Your task to perform on an android device: empty trash in the gmail app Image 0: 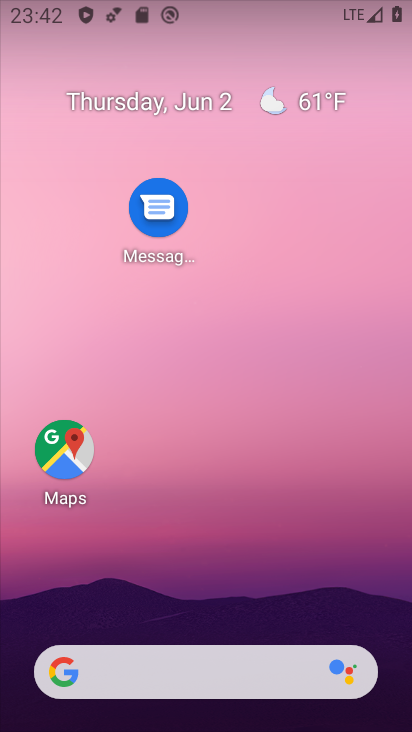
Step 0: drag from (226, 617) to (392, 517)
Your task to perform on an android device: empty trash in the gmail app Image 1: 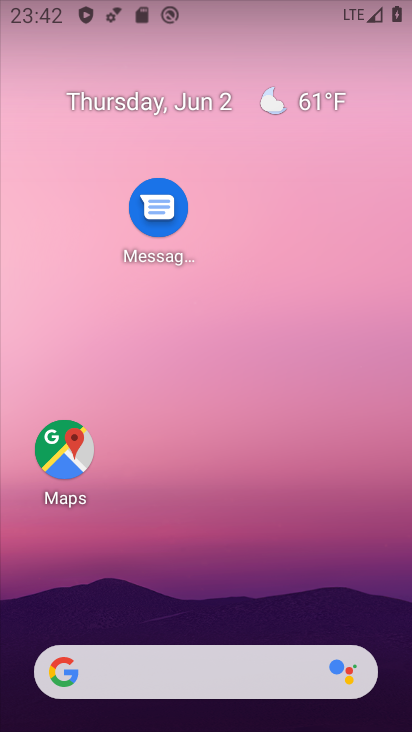
Step 1: drag from (169, 646) to (191, 14)
Your task to perform on an android device: empty trash in the gmail app Image 2: 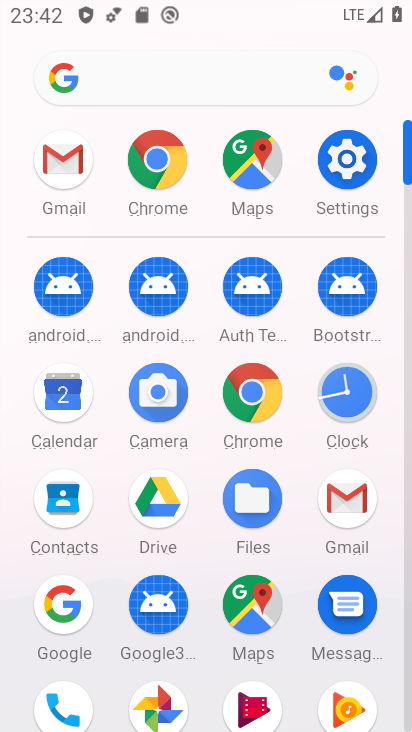
Step 2: click (338, 506)
Your task to perform on an android device: empty trash in the gmail app Image 3: 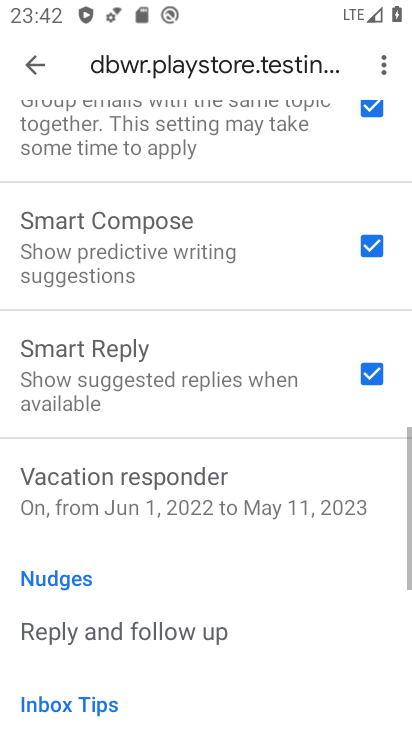
Step 3: click (23, 70)
Your task to perform on an android device: empty trash in the gmail app Image 4: 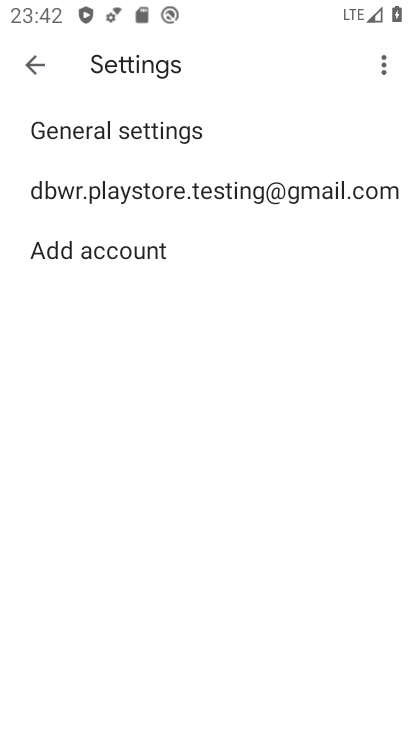
Step 4: click (37, 71)
Your task to perform on an android device: empty trash in the gmail app Image 5: 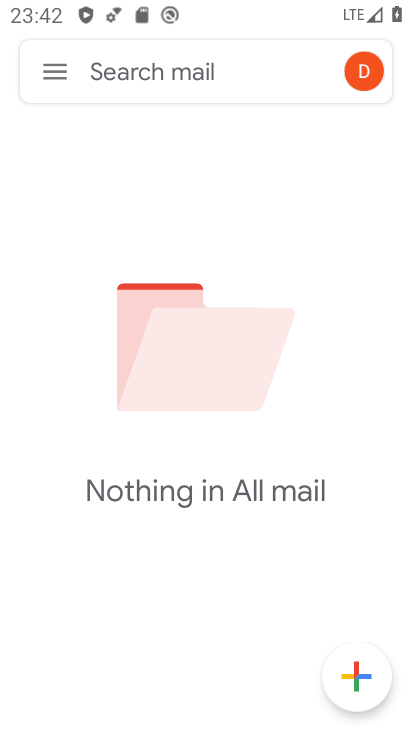
Step 5: click (37, 71)
Your task to perform on an android device: empty trash in the gmail app Image 6: 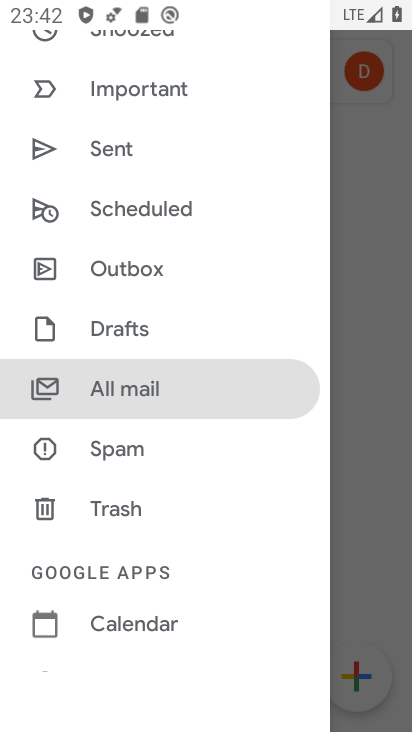
Step 6: drag from (119, 262) to (111, 580)
Your task to perform on an android device: empty trash in the gmail app Image 7: 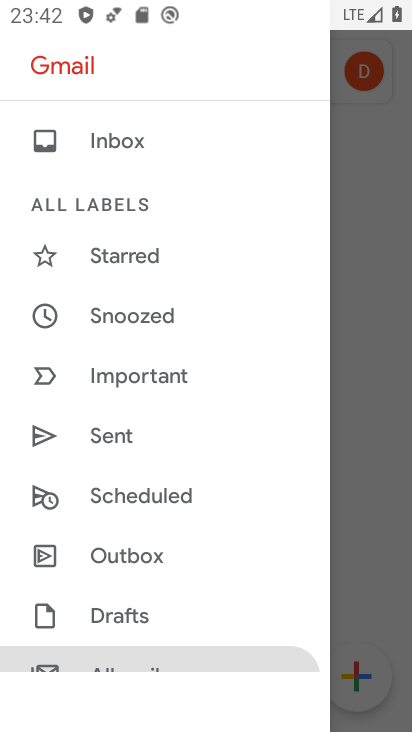
Step 7: drag from (142, 544) to (129, 93)
Your task to perform on an android device: empty trash in the gmail app Image 8: 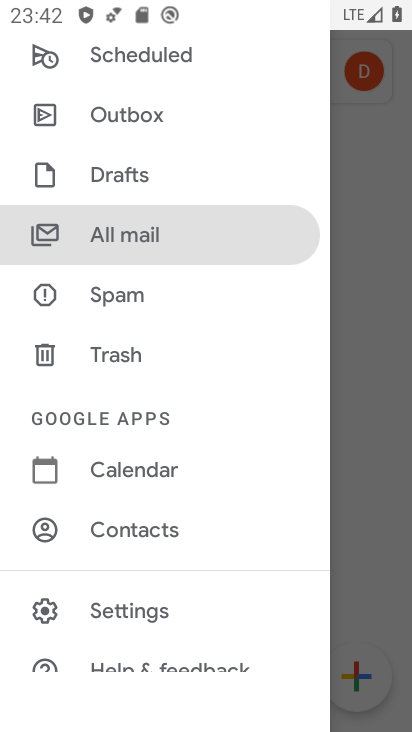
Step 8: click (155, 350)
Your task to perform on an android device: empty trash in the gmail app Image 9: 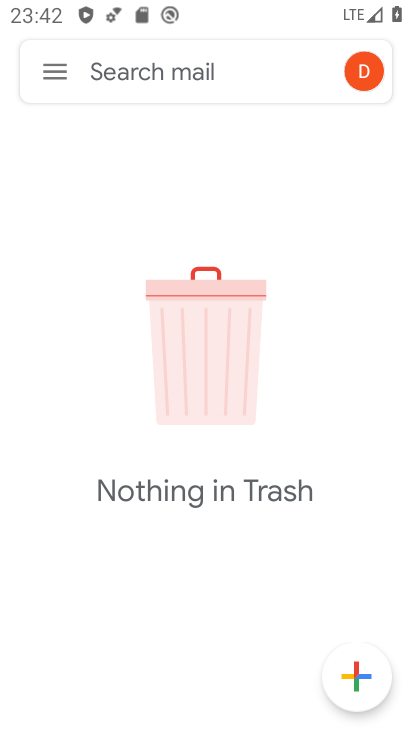
Step 9: task complete